Your task to perform on an android device: toggle show notifications on the lock screen Image 0: 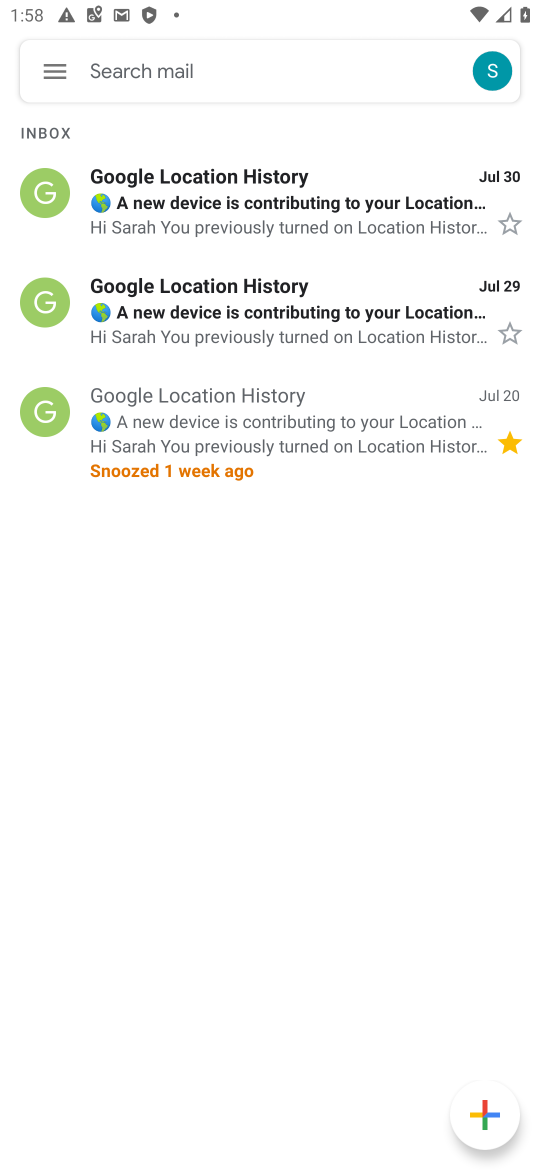
Step 0: press home button
Your task to perform on an android device: toggle show notifications on the lock screen Image 1: 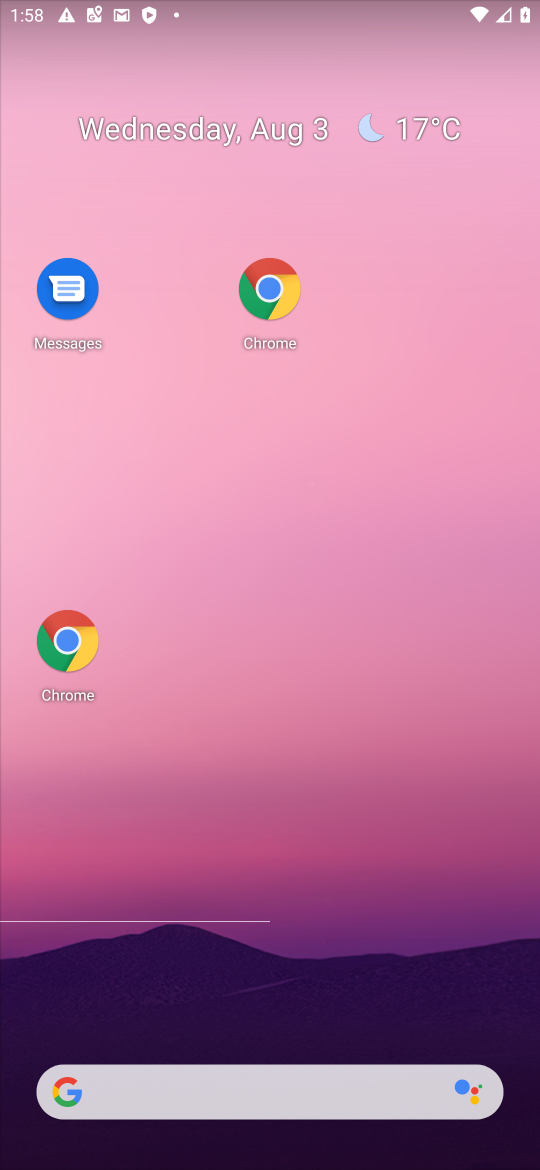
Step 1: drag from (363, 971) to (296, 155)
Your task to perform on an android device: toggle show notifications on the lock screen Image 2: 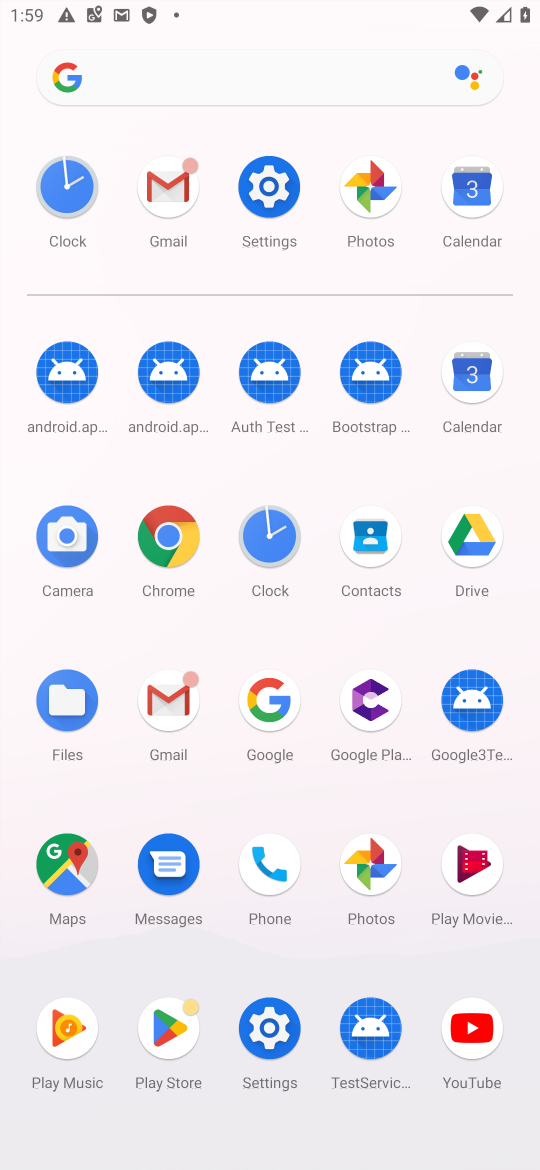
Step 2: click (268, 197)
Your task to perform on an android device: toggle show notifications on the lock screen Image 3: 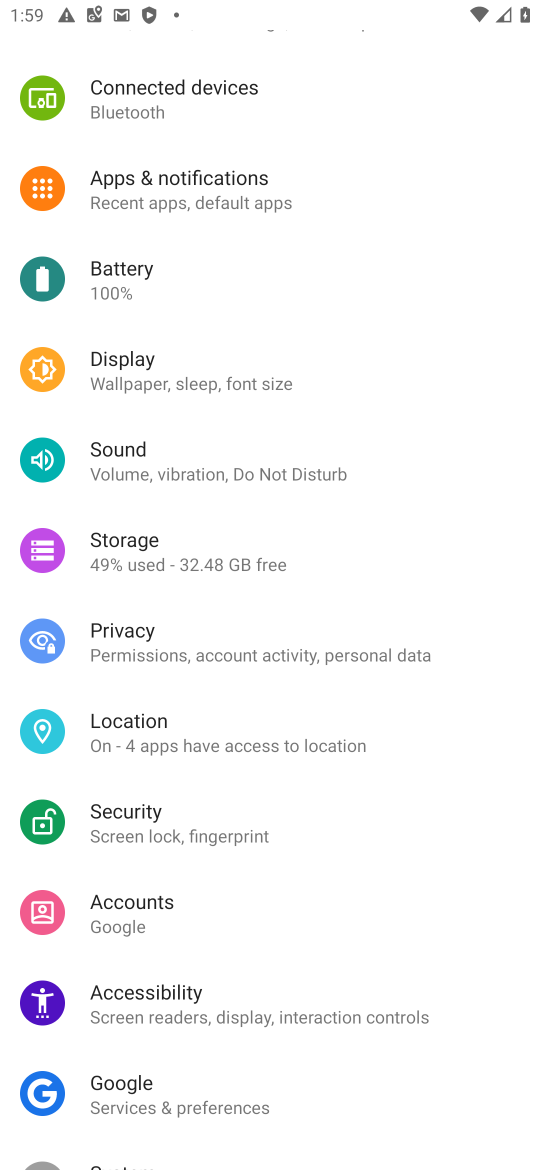
Step 3: drag from (265, 950) to (151, 739)
Your task to perform on an android device: toggle show notifications on the lock screen Image 4: 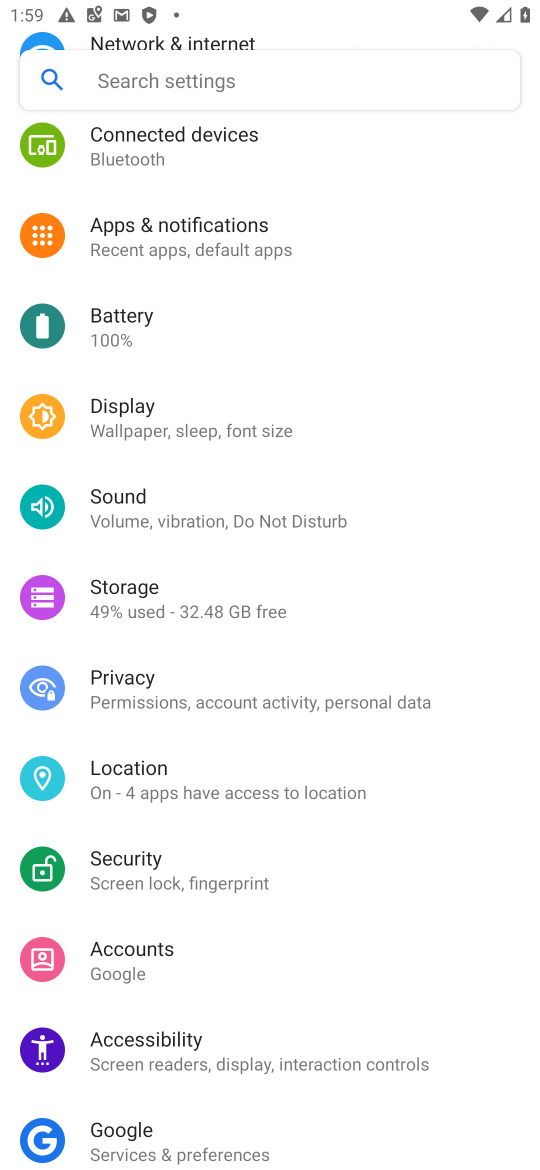
Step 4: click (219, 220)
Your task to perform on an android device: toggle show notifications on the lock screen Image 5: 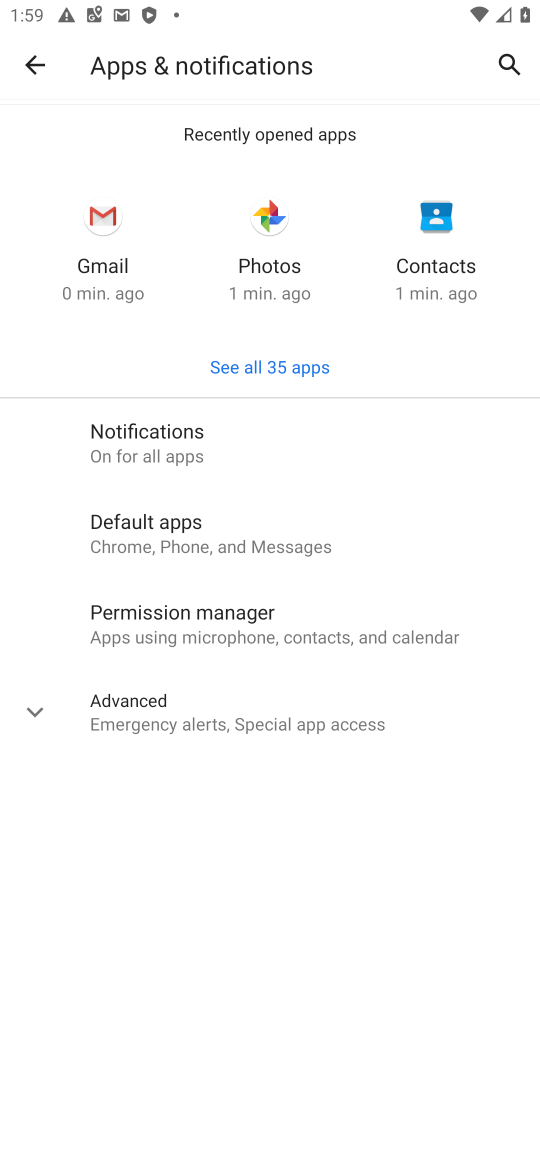
Step 5: click (252, 433)
Your task to perform on an android device: toggle show notifications on the lock screen Image 6: 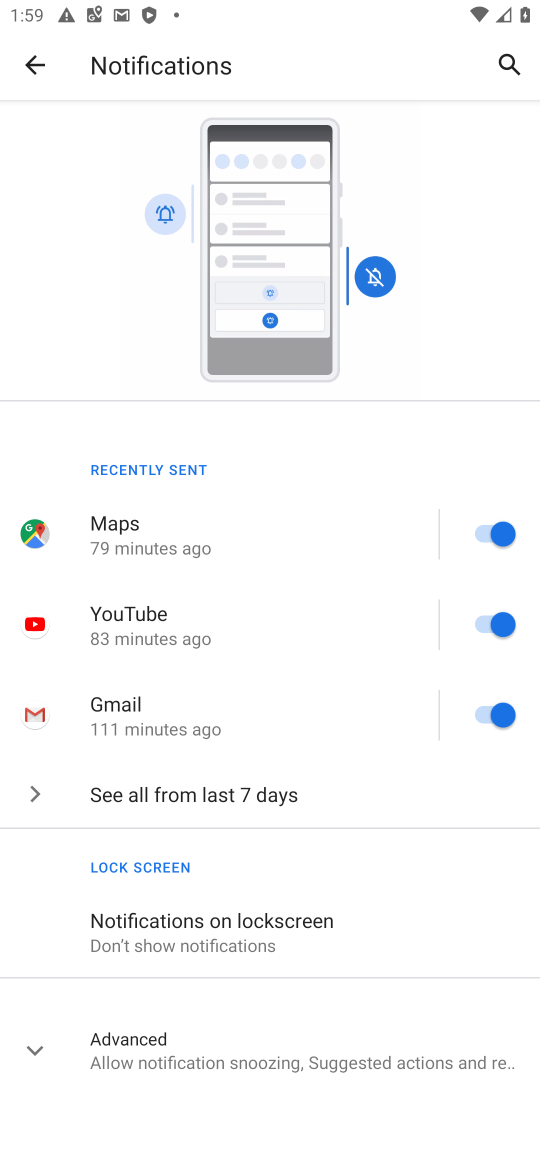
Step 6: click (374, 928)
Your task to perform on an android device: toggle show notifications on the lock screen Image 7: 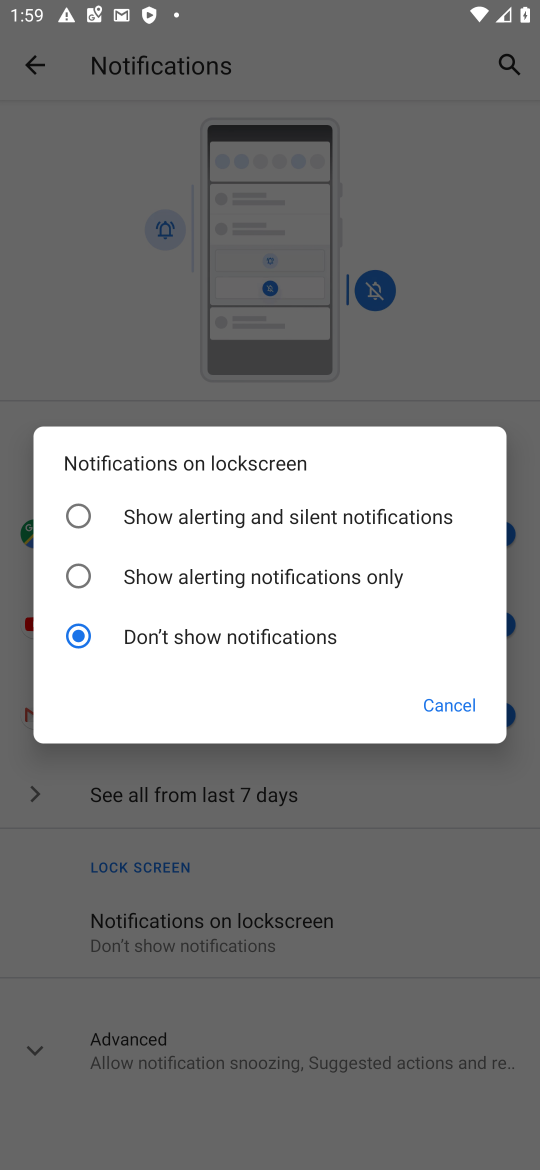
Step 7: click (200, 533)
Your task to perform on an android device: toggle show notifications on the lock screen Image 8: 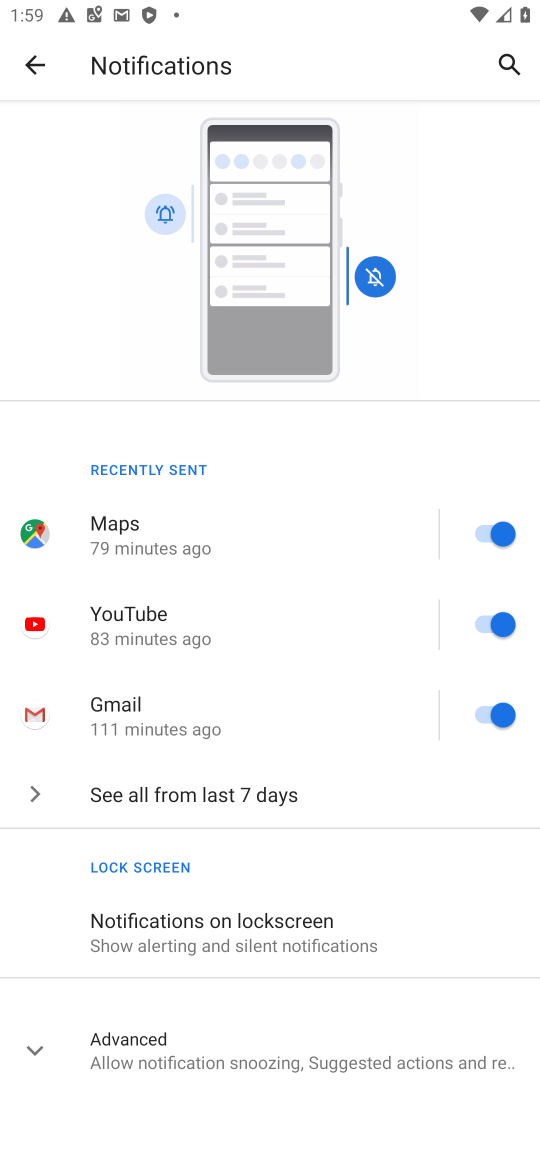
Step 8: task complete